Your task to perform on an android device: see creations saved in the google photos Image 0: 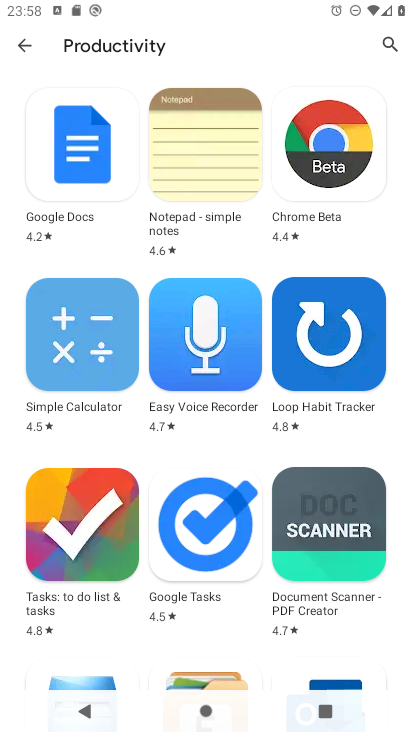
Step 0: press home button
Your task to perform on an android device: see creations saved in the google photos Image 1: 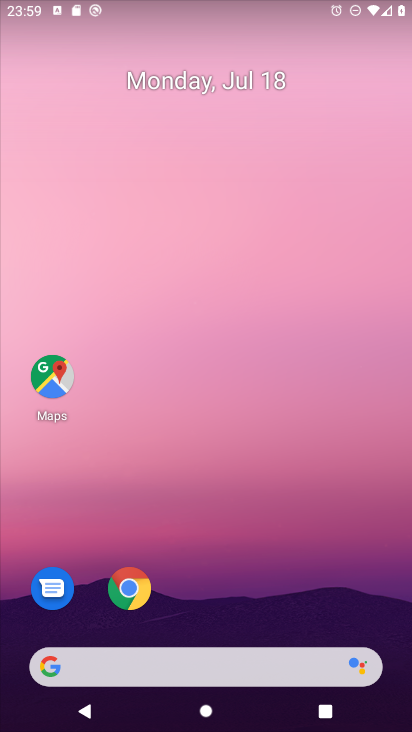
Step 1: drag from (377, 624) to (316, 137)
Your task to perform on an android device: see creations saved in the google photos Image 2: 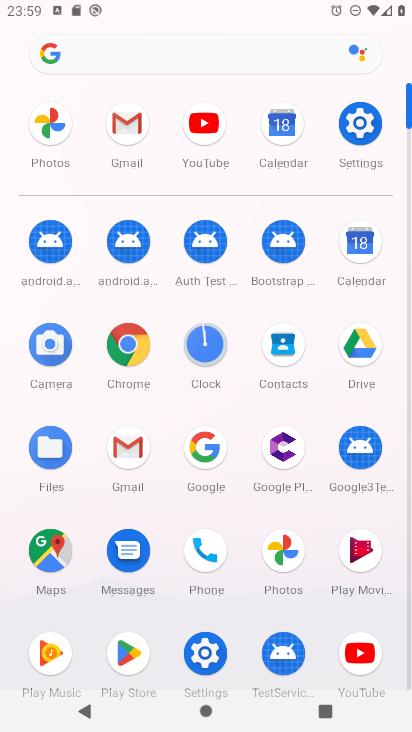
Step 2: click (283, 549)
Your task to perform on an android device: see creations saved in the google photos Image 3: 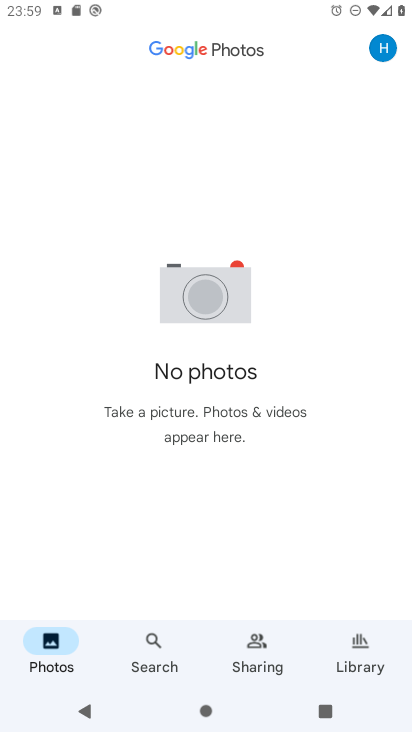
Step 3: task complete